Your task to perform on an android device: Search for Italian restaurants on Maps Image 0: 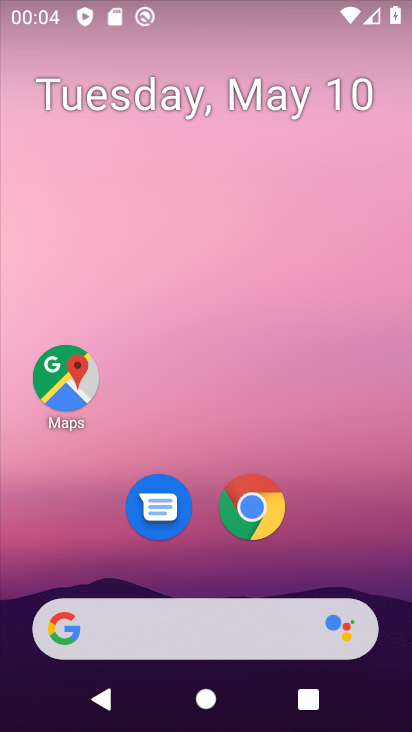
Step 0: click (59, 358)
Your task to perform on an android device: Search for Italian restaurants on Maps Image 1: 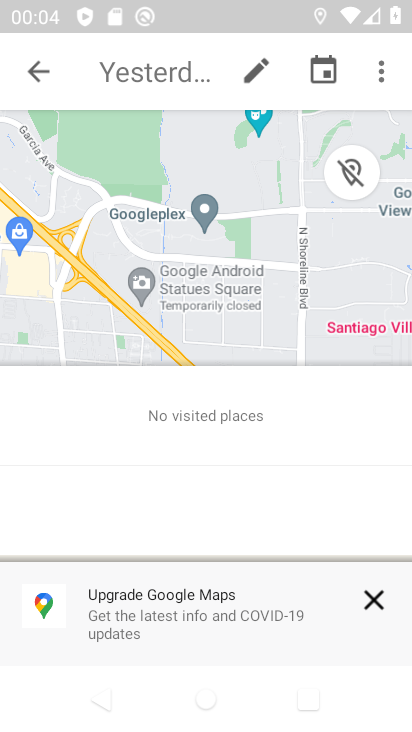
Step 1: click (21, 58)
Your task to perform on an android device: Search for Italian restaurants on Maps Image 2: 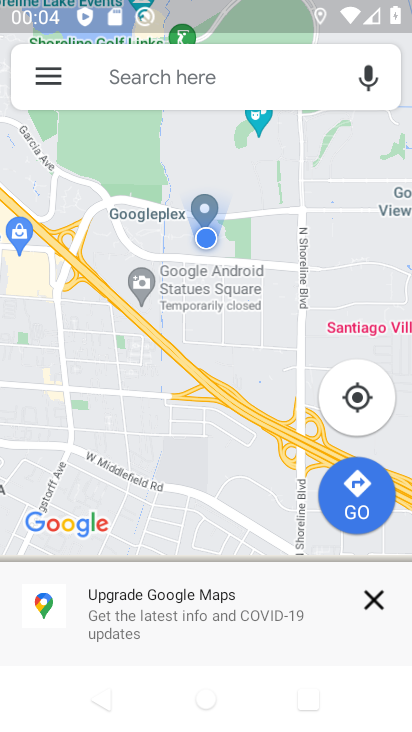
Step 2: click (190, 74)
Your task to perform on an android device: Search for Italian restaurants on Maps Image 3: 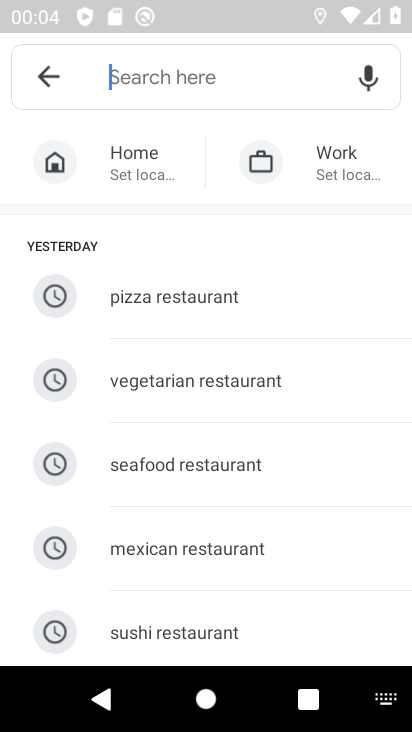
Step 3: type "italian"
Your task to perform on an android device: Search for Italian restaurants on Maps Image 4: 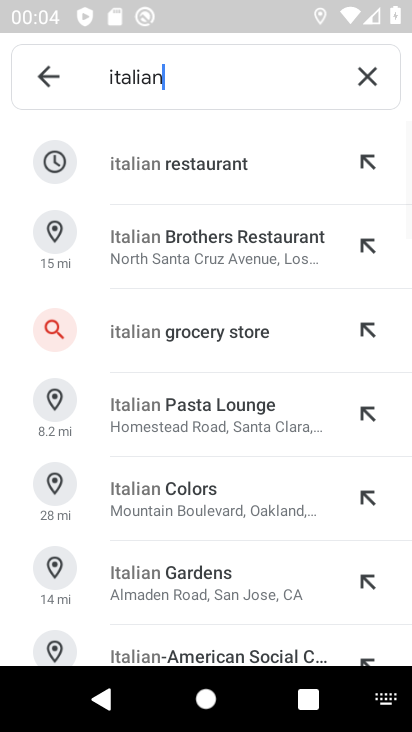
Step 4: click (240, 174)
Your task to perform on an android device: Search for Italian restaurants on Maps Image 5: 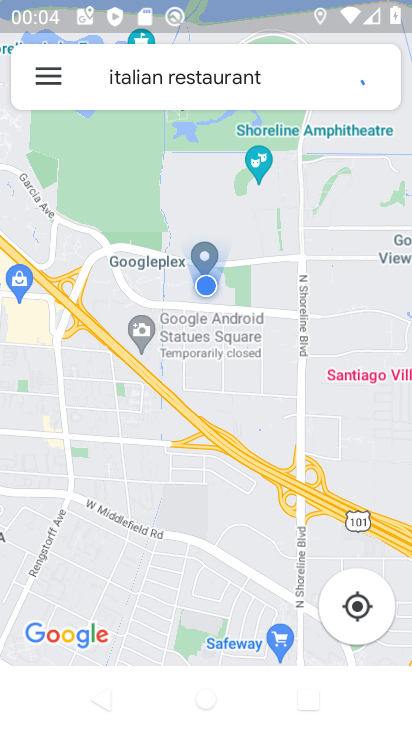
Step 5: task complete